Your task to perform on an android device: delete the emails in spam in the gmail app Image 0: 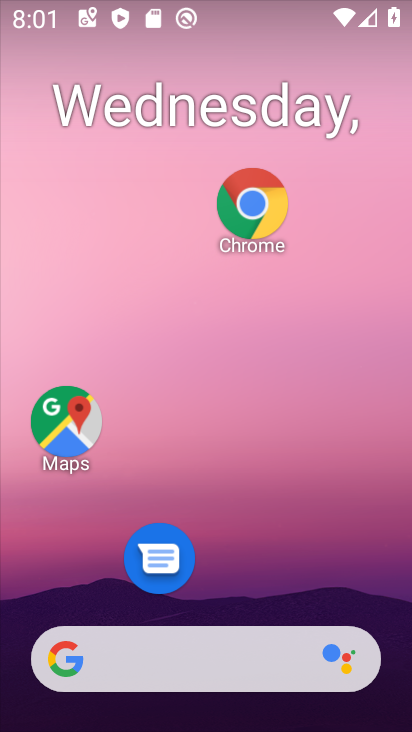
Step 0: drag from (218, 558) to (225, 22)
Your task to perform on an android device: delete the emails in spam in the gmail app Image 1: 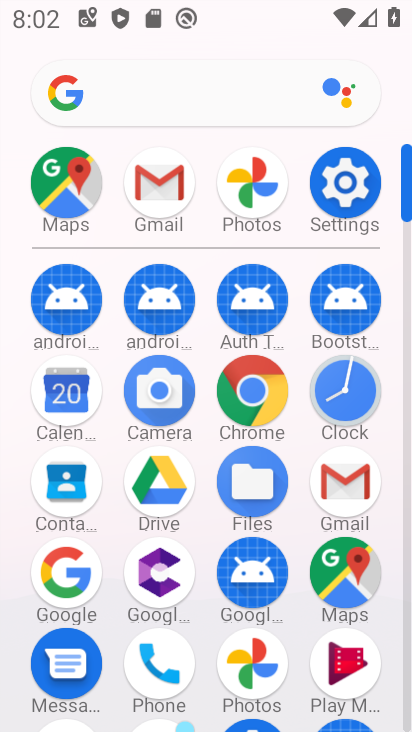
Step 1: click (343, 477)
Your task to perform on an android device: delete the emails in spam in the gmail app Image 2: 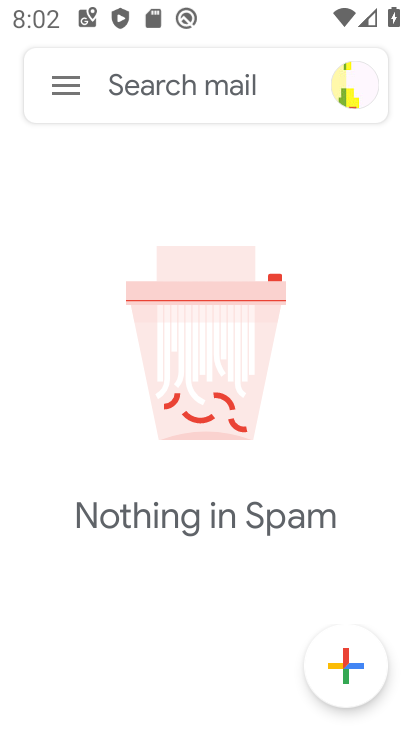
Step 2: click (67, 84)
Your task to perform on an android device: delete the emails in spam in the gmail app Image 3: 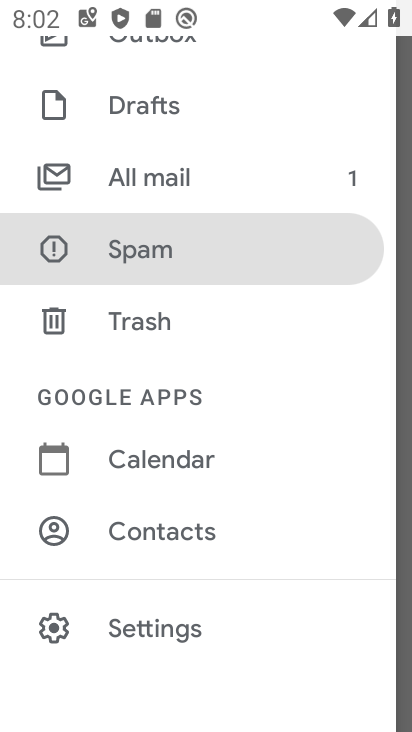
Step 3: click (143, 257)
Your task to perform on an android device: delete the emails in spam in the gmail app Image 4: 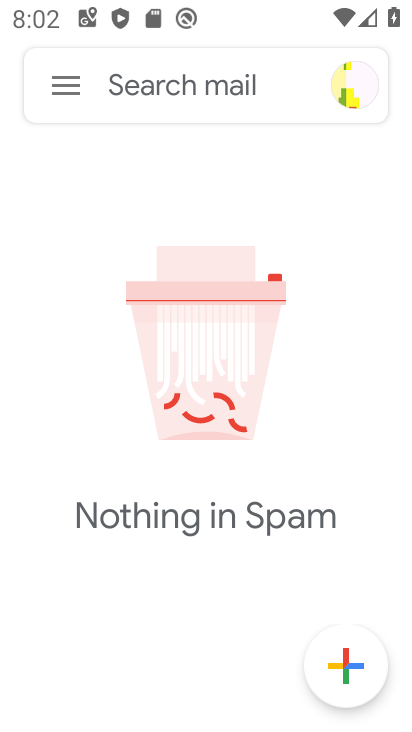
Step 4: task complete